Your task to perform on an android device: Go to internet settings Image 0: 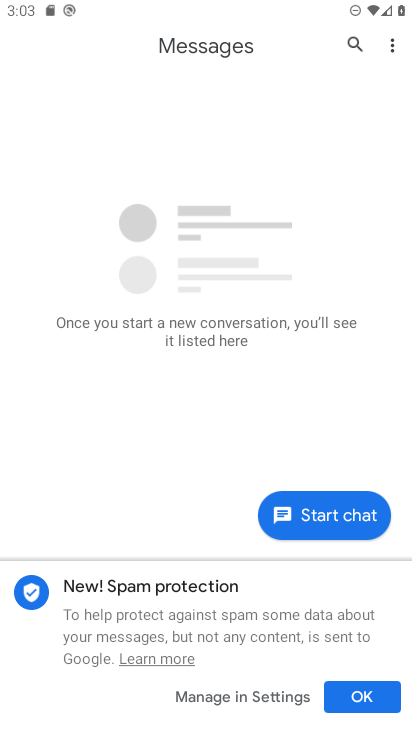
Step 0: press home button
Your task to perform on an android device: Go to internet settings Image 1: 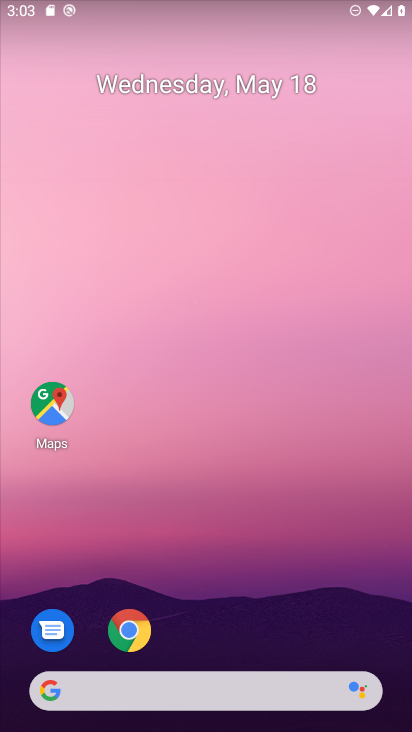
Step 1: drag from (212, 638) to (250, 136)
Your task to perform on an android device: Go to internet settings Image 2: 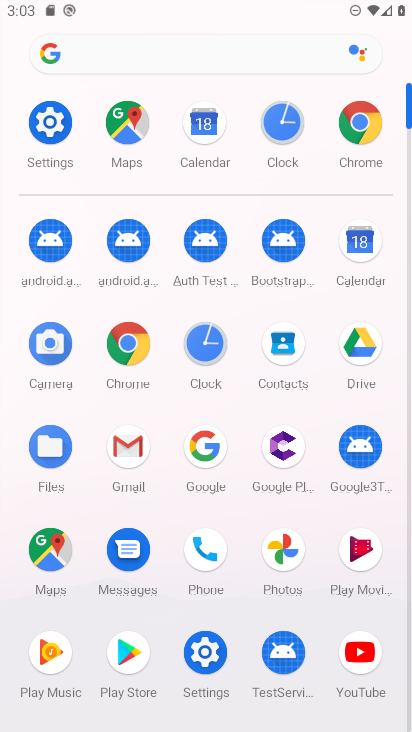
Step 2: click (47, 130)
Your task to perform on an android device: Go to internet settings Image 3: 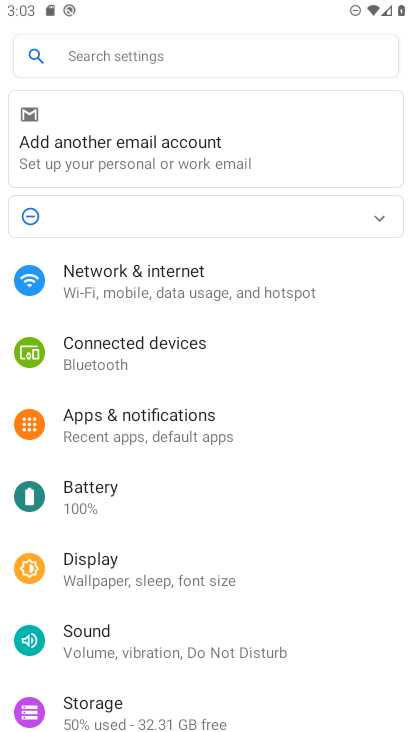
Step 3: click (149, 275)
Your task to perform on an android device: Go to internet settings Image 4: 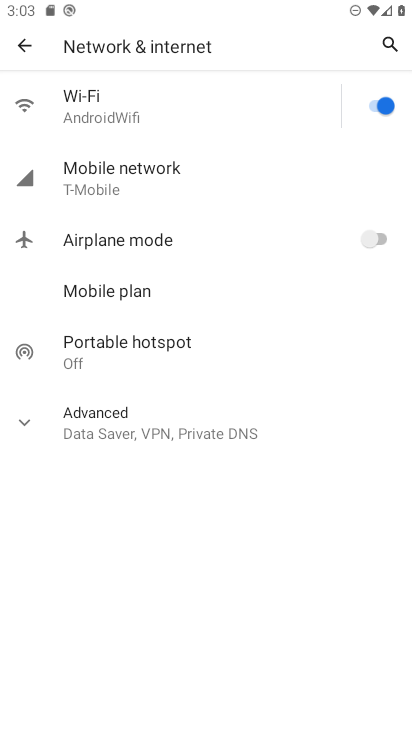
Step 4: click (38, 414)
Your task to perform on an android device: Go to internet settings Image 5: 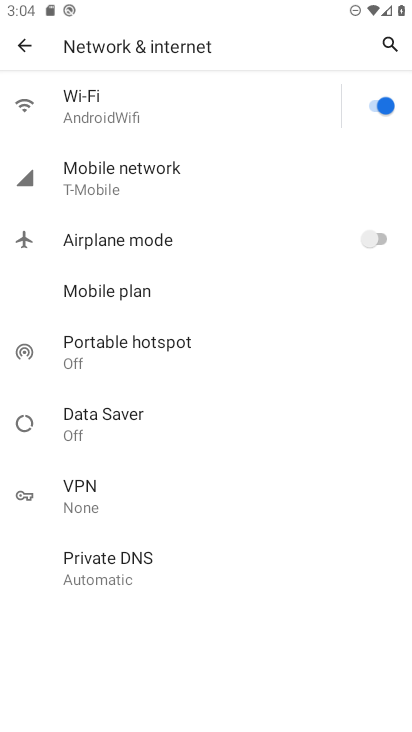
Step 5: task complete